Your task to perform on an android device: Open Google Maps Image 0: 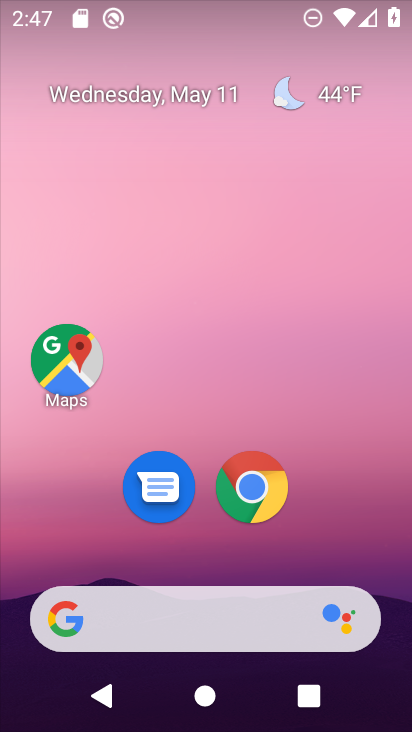
Step 0: click (70, 365)
Your task to perform on an android device: Open Google Maps Image 1: 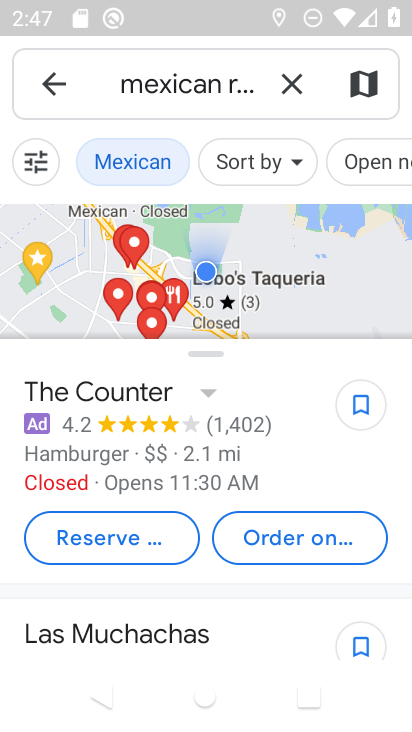
Step 1: task complete